Your task to perform on an android device: What's the weather going to be tomorrow? Image 0: 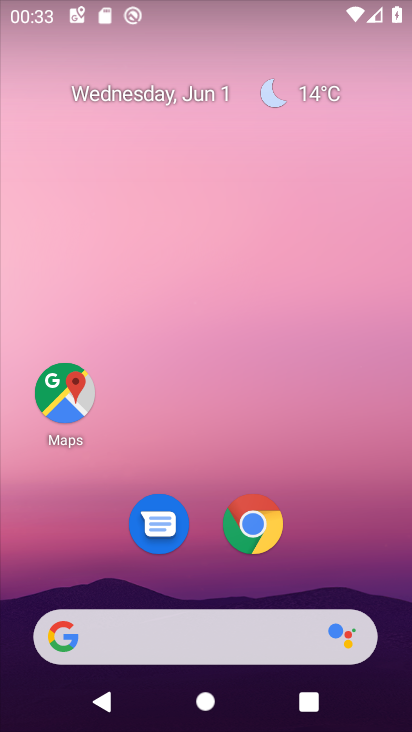
Step 0: click (302, 89)
Your task to perform on an android device: What's the weather going to be tomorrow? Image 1: 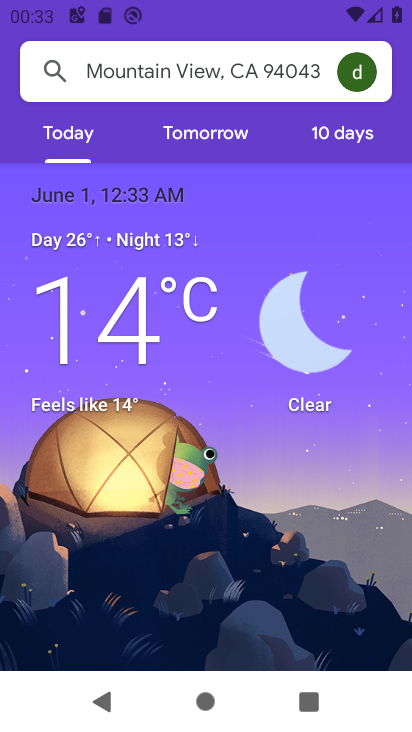
Step 1: click (205, 140)
Your task to perform on an android device: What's the weather going to be tomorrow? Image 2: 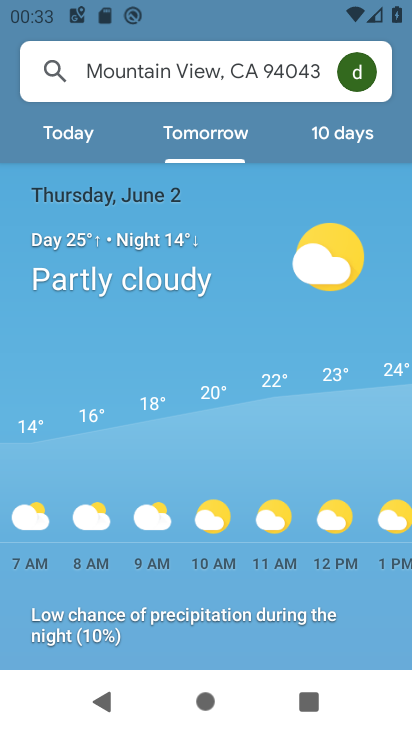
Step 2: task complete